Your task to perform on an android device: Go to accessibility settings Image 0: 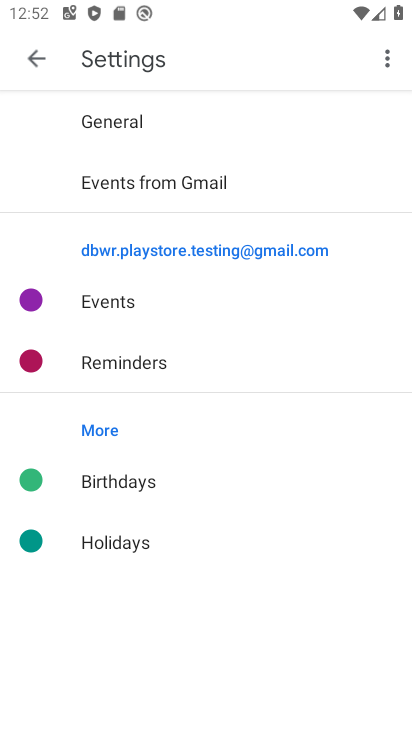
Step 0: press home button
Your task to perform on an android device: Go to accessibility settings Image 1: 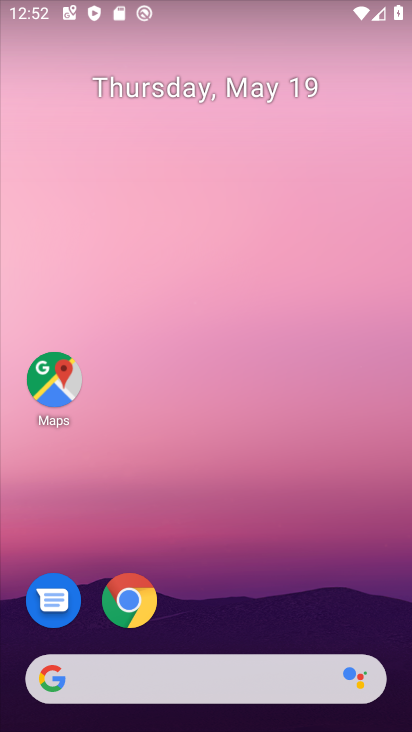
Step 1: drag from (250, 591) to (242, 116)
Your task to perform on an android device: Go to accessibility settings Image 2: 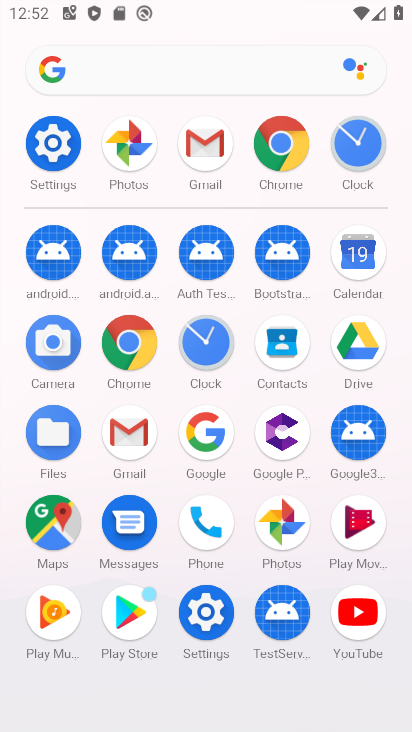
Step 2: click (47, 180)
Your task to perform on an android device: Go to accessibility settings Image 3: 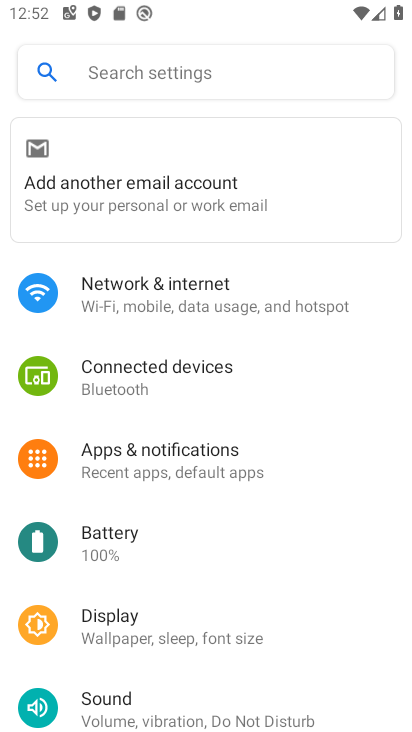
Step 3: drag from (154, 584) to (213, 314)
Your task to perform on an android device: Go to accessibility settings Image 4: 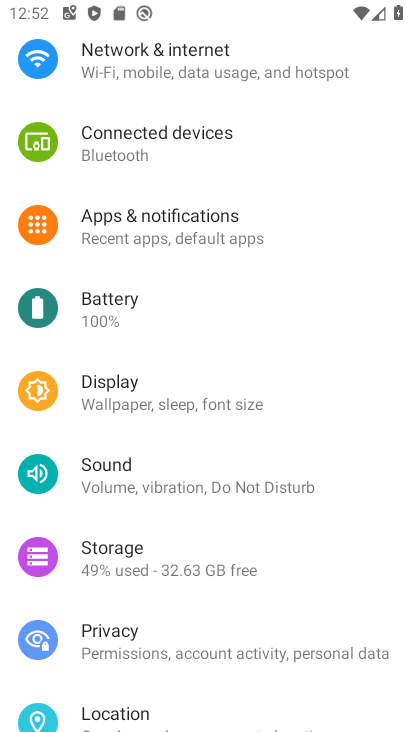
Step 4: drag from (246, 678) to (297, 326)
Your task to perform on an android device: Go to accessibility settings Image 5: 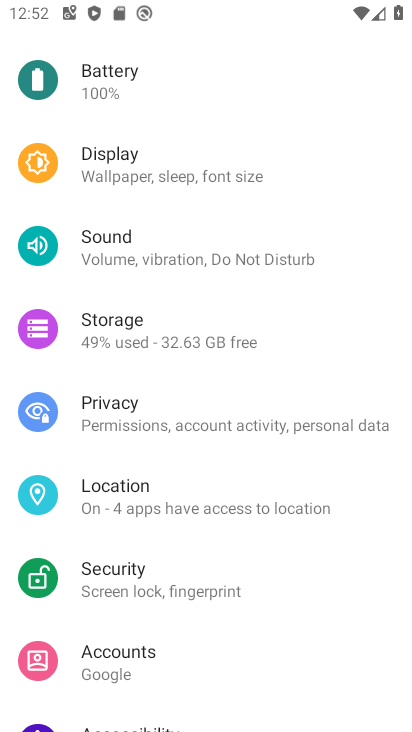
Step 5: drag from (245, 648) to (252, 485)
Your task to perform on an android device: Go to accessibility settings Image 6: 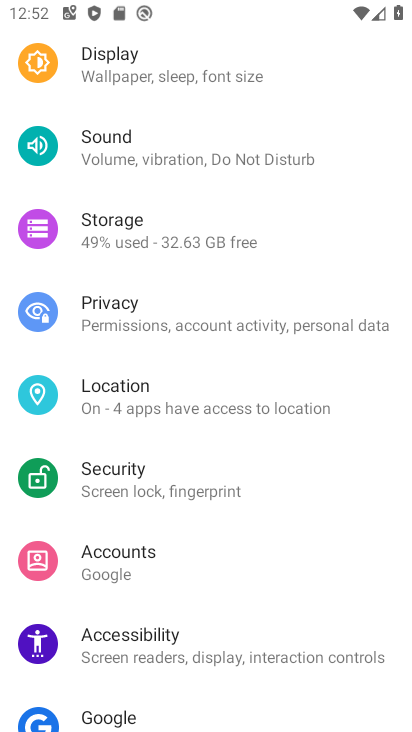
Step 6: click (195, 622)
Your task to perform on an android device: Go to accessibility settings Image 7: 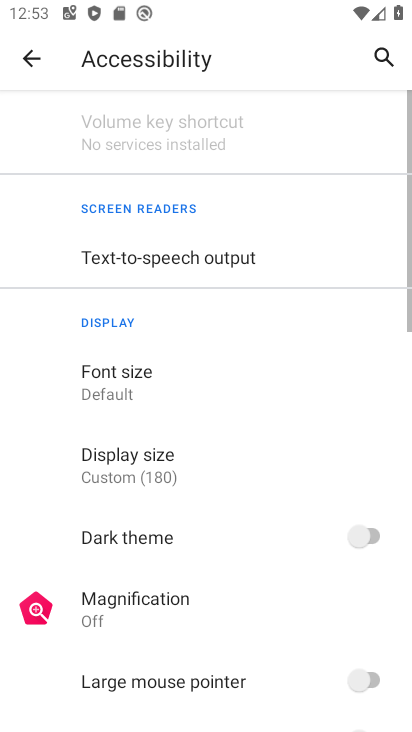
Step 7: task complete